Your task to perform on an android device: delete location history Image 0: 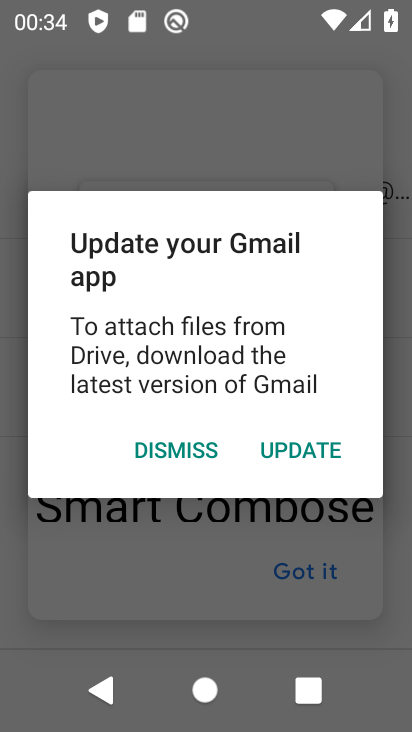
Step 0: press home button
Your task to perform on an android device: delete location history Image 1: 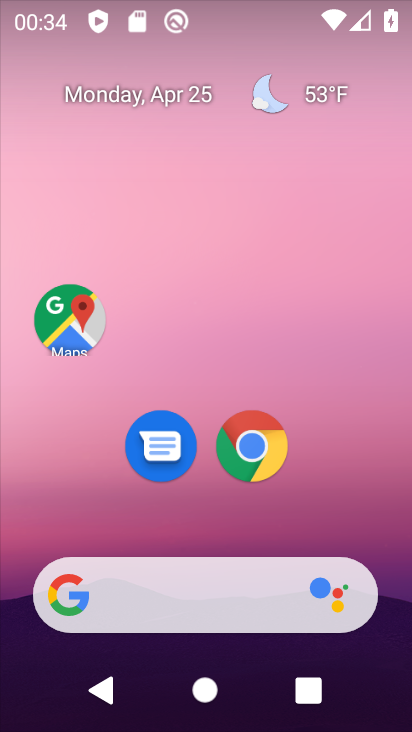
Step 1: drag from (208, 508) to (165, 11)
Your task to perform on an android device: delete location history Image 2: 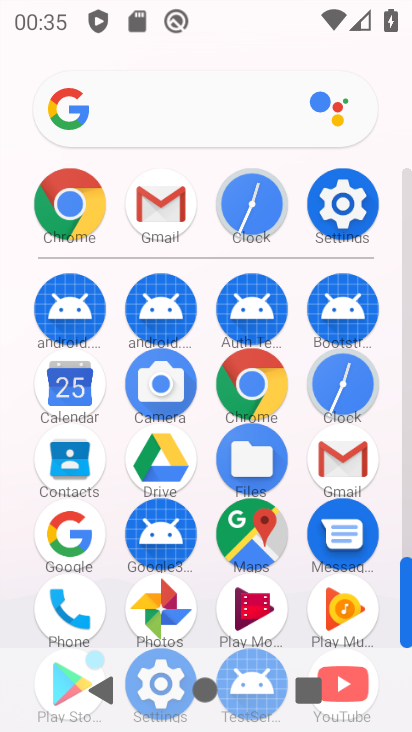
Step 2: click (254, 537)
Your task to perform on an android device: delete location history Image 3: 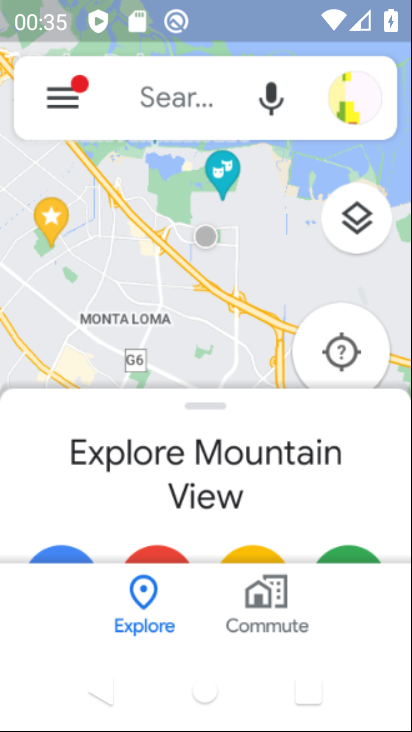
Step 3: click (74, 105)
Your task to perform on an android device: delete location history Image 4: 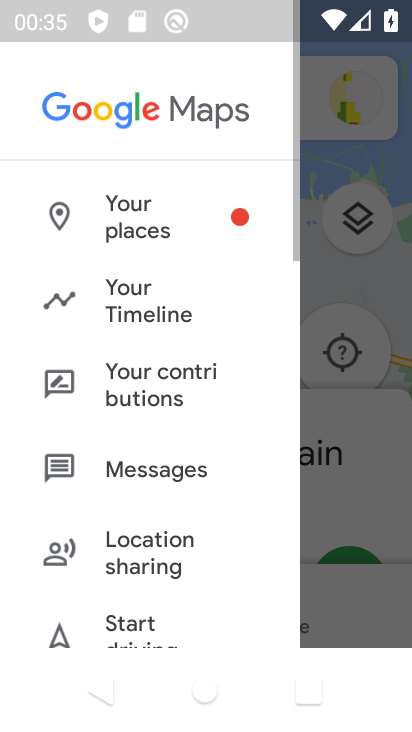
Step 4: click (125, 313)
Your task to perform on an android device: delete location history Image 5: 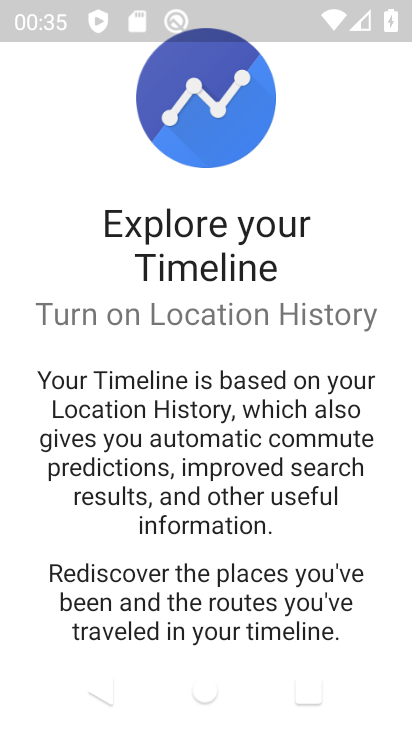
Step 5: drag from (189, 528) to (215, 126)
Your task to perform on an android device: delete location history Image 6: 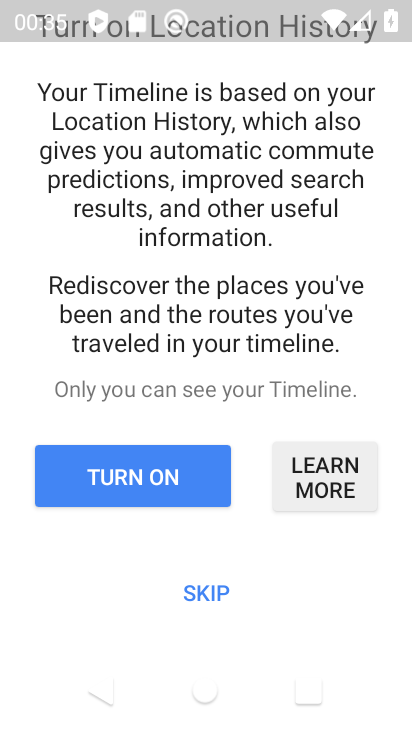
Step 6: click (214, 586)
Your task to perform on an android device: delete location history Image 7: 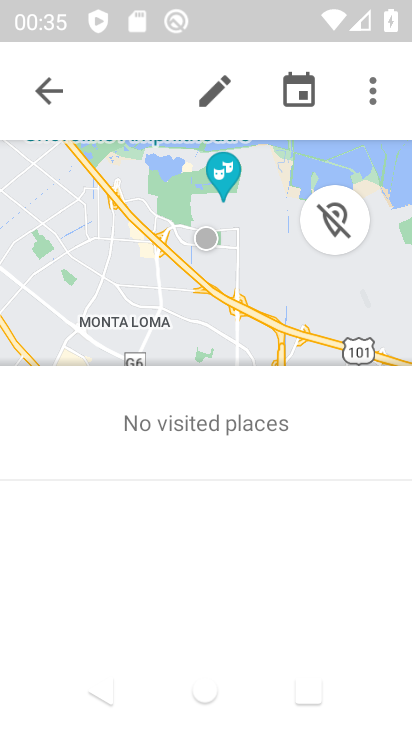
Step 7: click (365, 94)
Your task to perform on an android device: delete location history Image 8: 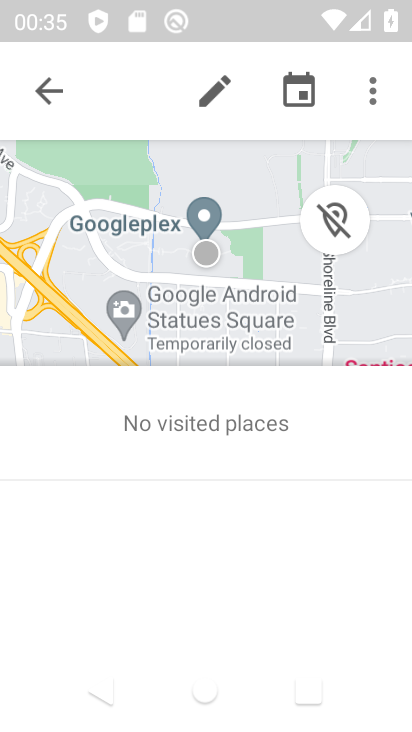
Step 8: click (376, 91)
Your task to perform on an android device: delete location history Image 9: 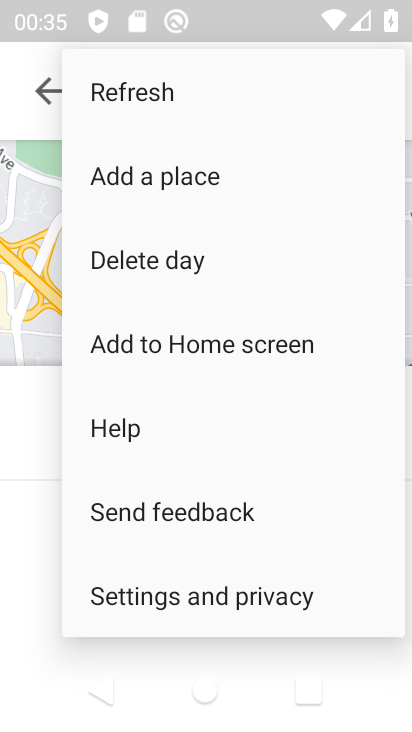
Step 9: click (217, 599)
Your task to perform on an android device: delete location history Image 10: 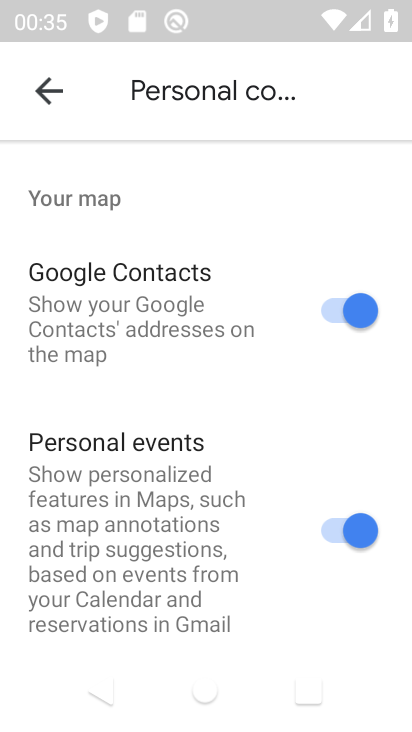
Step 10: drag from (146, 519) to (215, 142)
Your task to perform on an android device: delete location history Image 11: 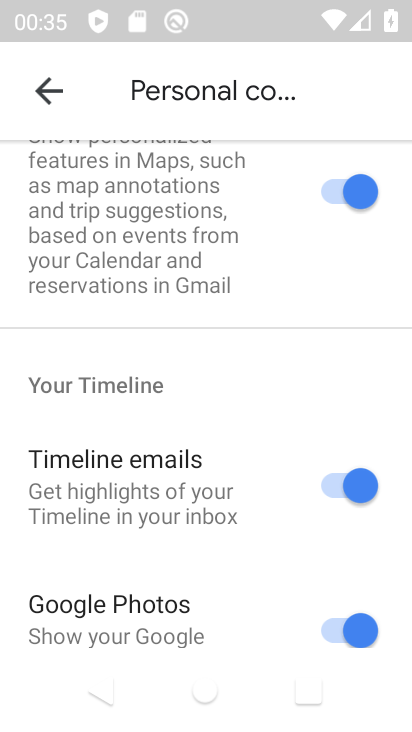
Step 11: drag from (154, 502) to (206, 221)
Your task to perform on an android device: delete location history Image 12: 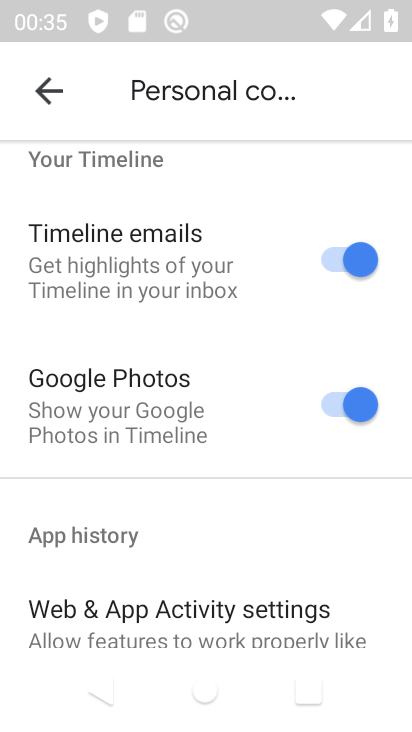
Step 12: drag from (146, 572) to (205, 278)
Your task to perform on an android device: delete location history Image 13: 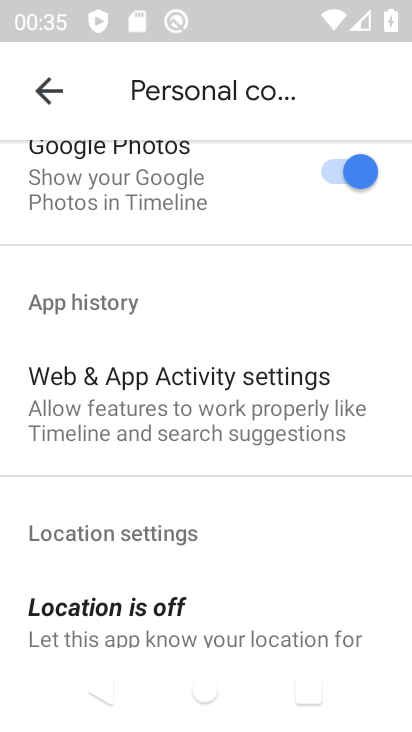
Step 13: drag from (200, 545) to (236, 219)
Your task to perform on an android device: delete location history Image 14: 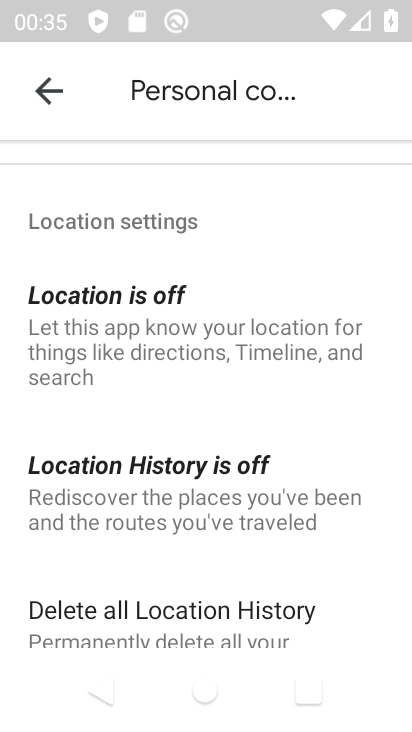
Step 14: click (147, 604)
Your task to perform on an android device: delete location history Image 15: 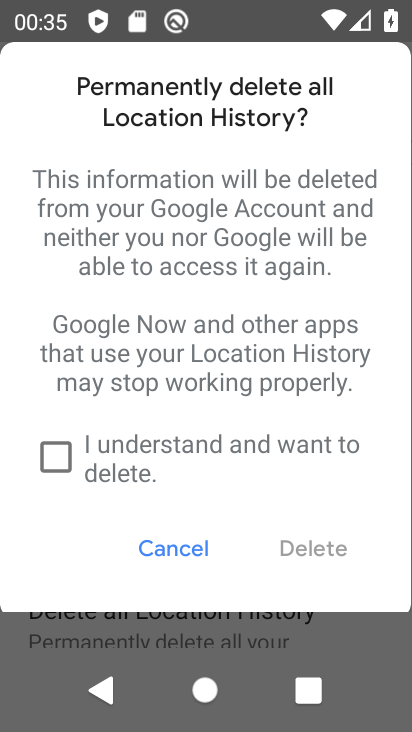
Step 15: click (53, 453)
Your task to perform on an android device: delete location history Image 16: 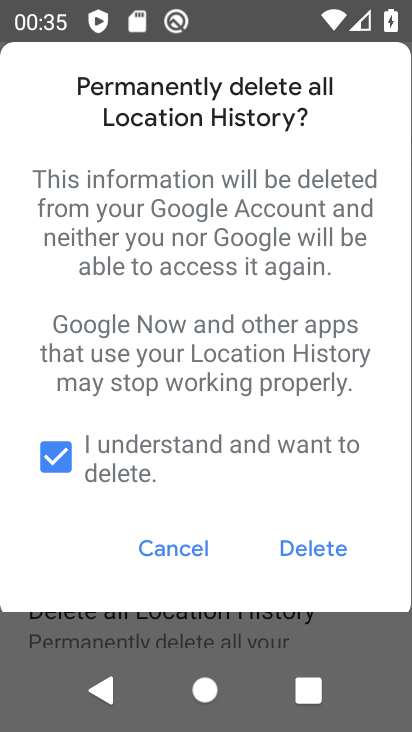
Step 16: click (324, 544)
Your task to perform on an android device: delete location history Image 17: 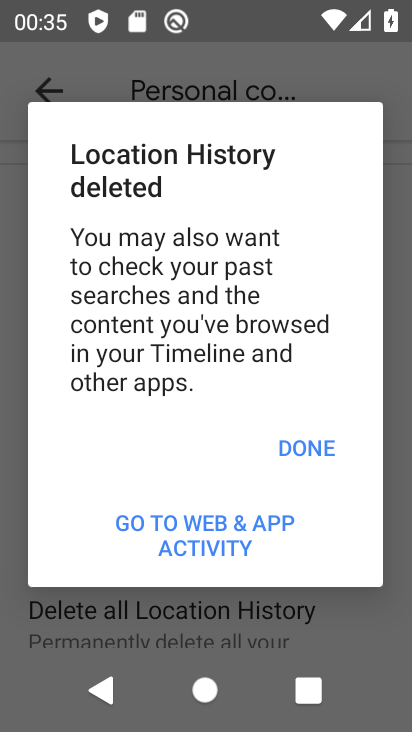
Step 17: task complete